Your task to perform on an android device: check the backup settings in the google photos Image 0: 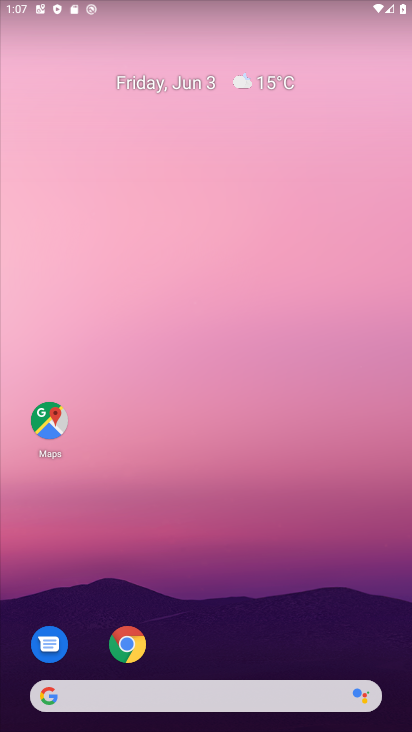
Step 0: drag from (188, 654) to (225, 0)
Your task to perform on an android device: check the backup settings in the google photos Image 1: 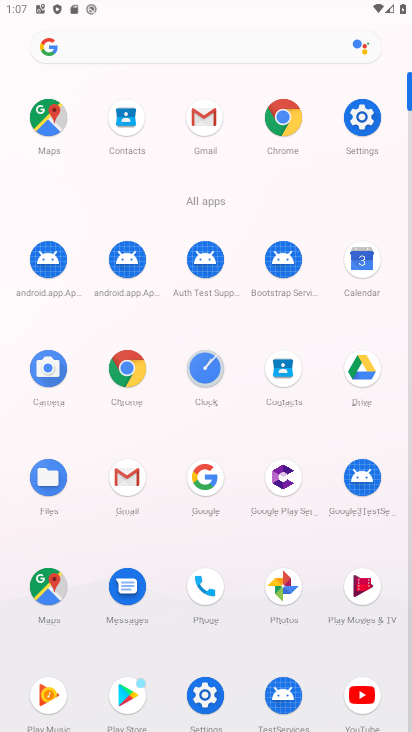
Step 1: click (286, 596)
Your task to perform on an android device: check the backup settings in the google photos Image 2: 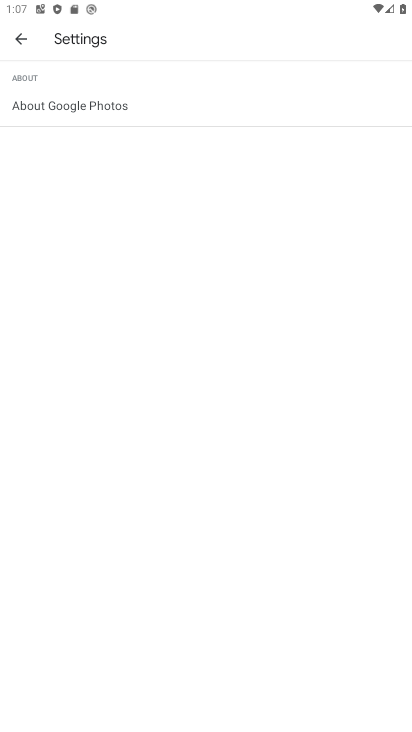
Step 2: click (19, 28)
Your task to perform on an android device: check the backup settings in the google photos Image 3: 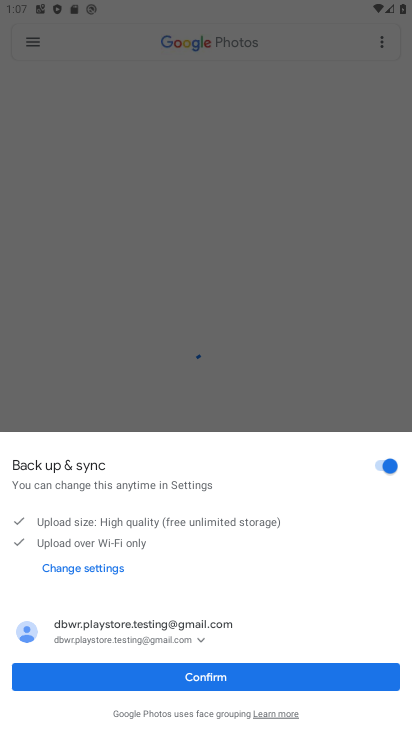
Step 3: click (222, 677)
Your task to perform on an android device: check the backup settings in the google photos Image 4: 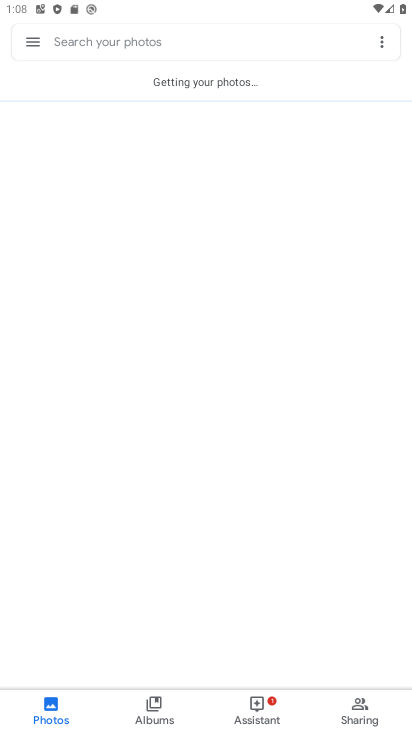
Step 4: click (28, 49)
Your task to perform on an android device: check the backup settings in the google photos Image 5: 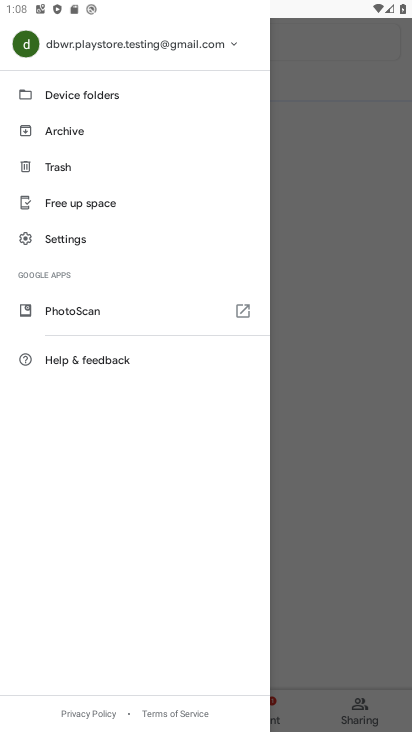
Step 5: click (61, 239)
Your task to perform on an android device: check the backup settings in the google photos Image 6: 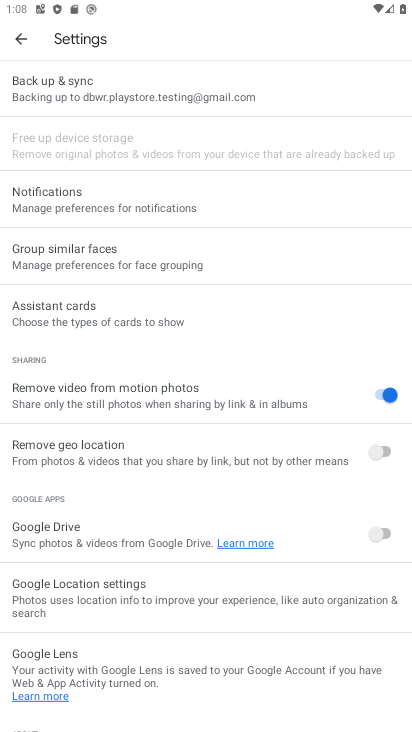
Step 6: click (157, 95)
Your task to perform on an android device: check the backup settings in the google photos Image 7: 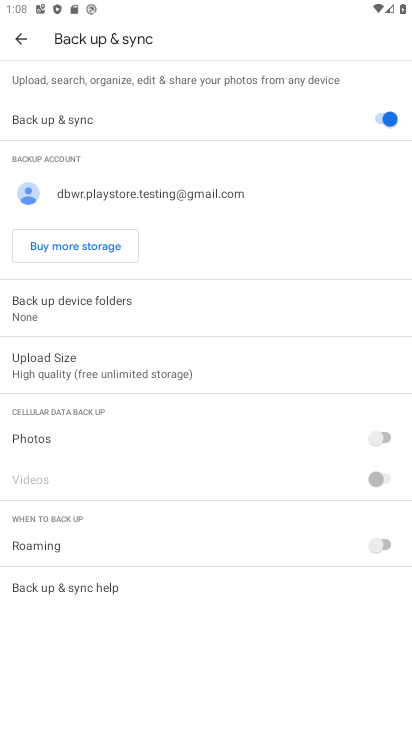
Step 7: task complete